Your task to perform on an android device: empty trash in google photos Image 0: 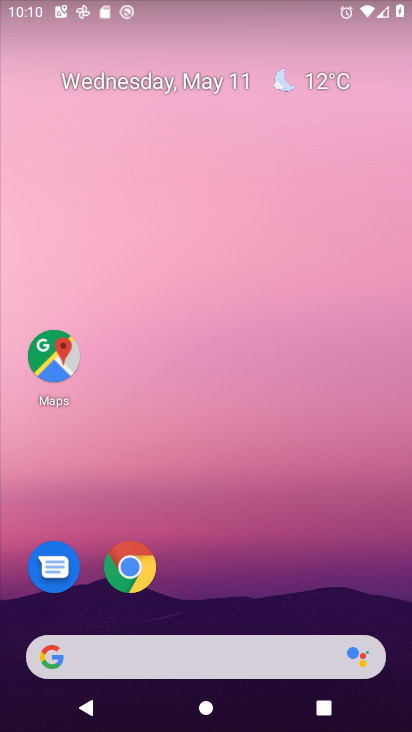
Step 0: drag from (253, 558) to (194, 68)
Your task to perform on an android device: empty trash in google photos Image 1: 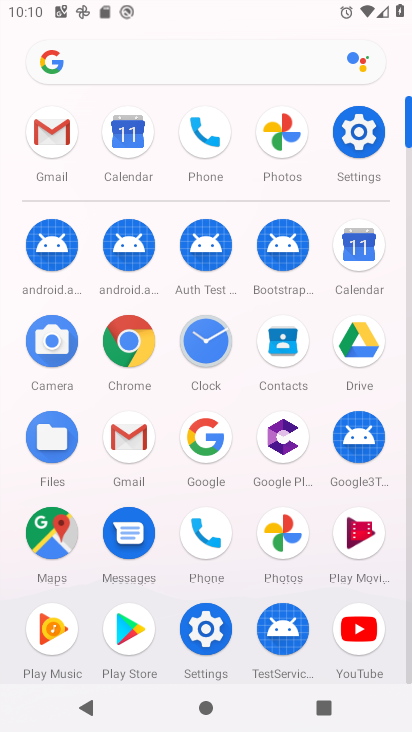
Step 1: click (280, 146)
Your task to perform on an android device: empty trash in google photos Image 2: 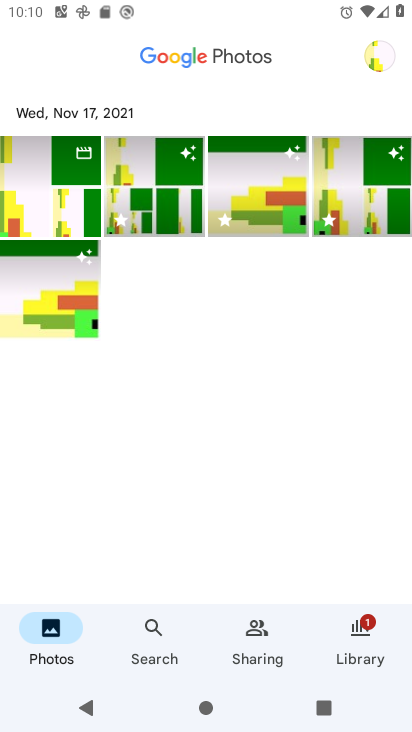
Step 2: click (359, 631)
Your task to perform on an android device: empty trash in google photos Image 3: 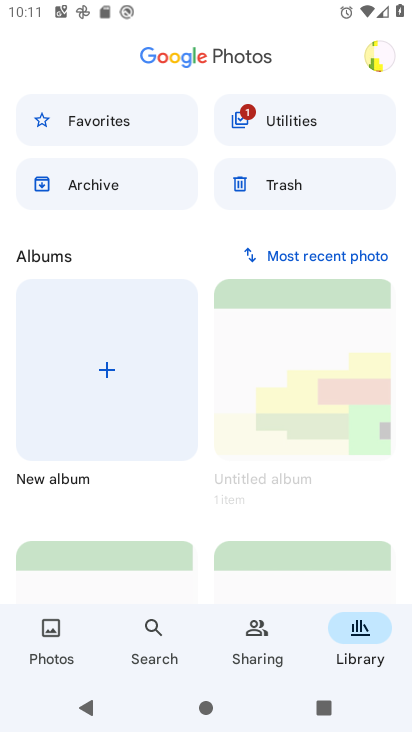
Step 3: click (289, 180)
Your task to perform on an android device: empty trash in google photos Image 4: 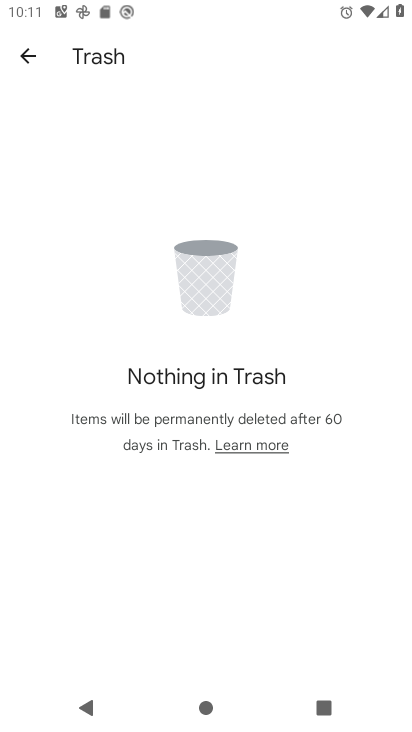
Step 4: task complete